Your task to perform on an android device: toggle priority inbox in the gmail app Image 0: 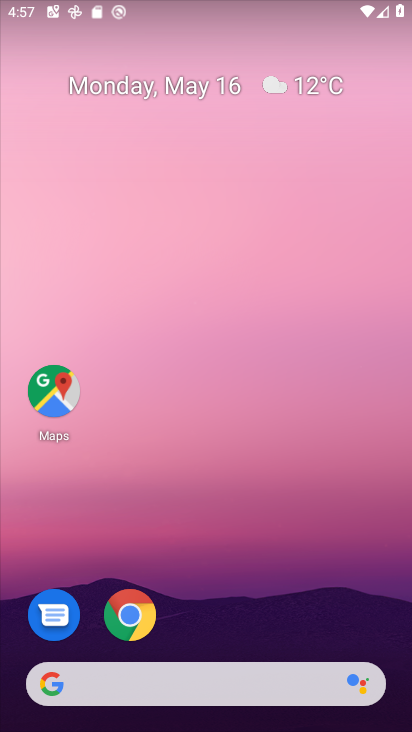
Step 0: drag from (247, 612) to (227, 169)
Your task to perform on an android device: toggle priority inbox in the gmail app Image 1: 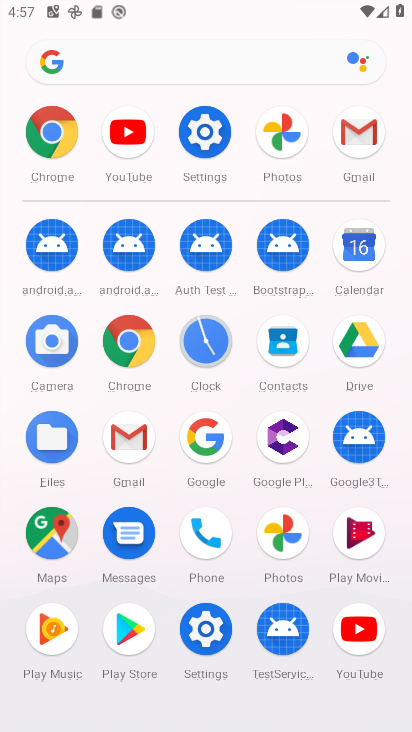
Step 1: click (205, 645)
Your task to perform on an android device: toggle priority inbox in the gmail app Image 2: 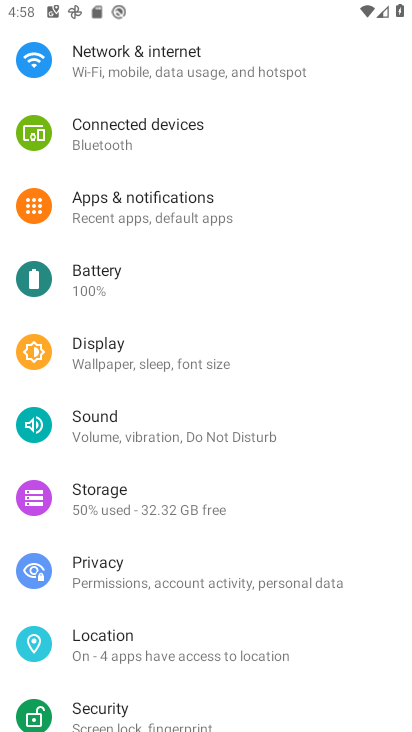
Step 2: press home button
Your task to perform on an android device: toggle priority inbox in the gmail app Image 3: 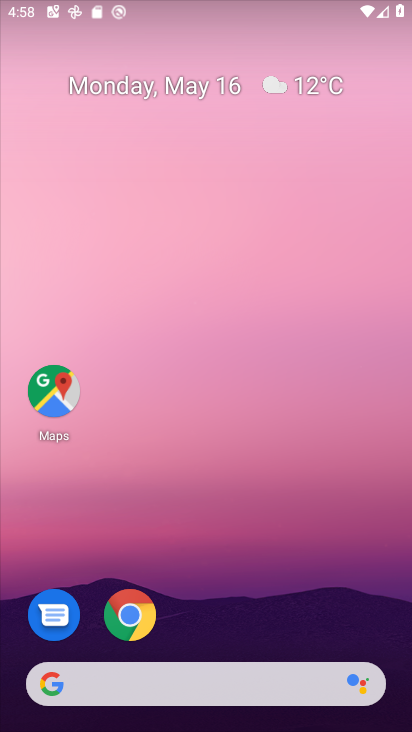
Step 3: drag from (192, 633) to (284, 194)
Your task to perform on an android device: toggle priority inbox in the gmail app Image 4: 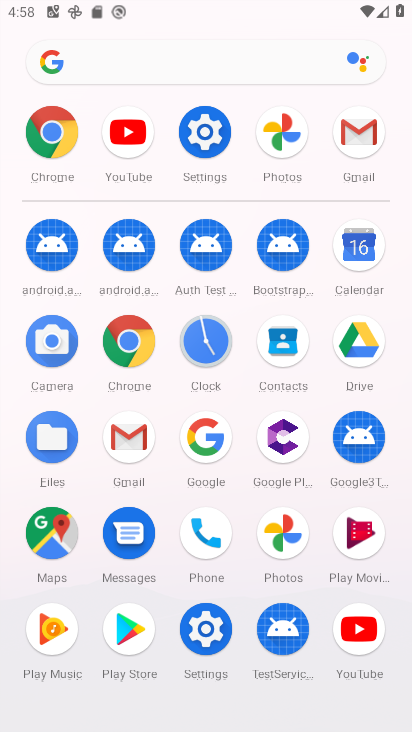
Step 4: click (130, 439)
Your task to perform on an android device: toggle priority inbox in the gmail app Image 5: 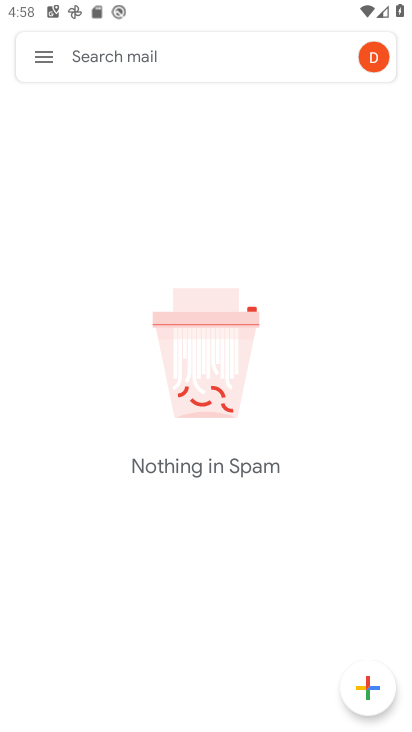
Step 5: click (40, 58)
Your task to perform on an android device: toggle priority inbox in the gmail app Image 6: 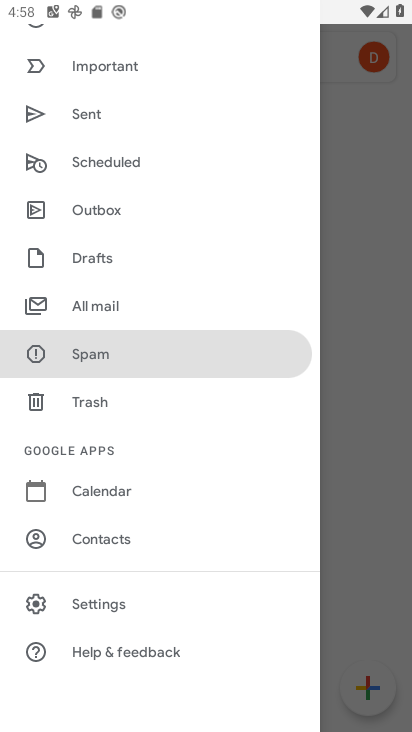
Step 6: click (96, 609)
Your task to perform on an android device: toggle priority inbox in the gmail app Image 7: 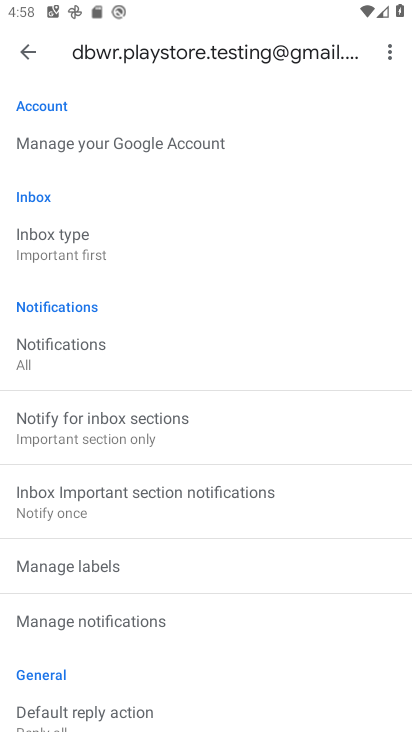
Step 7: click (69, 248)
Your task to perform on an android device: toggle priority inbox in the gmail app Image 8: 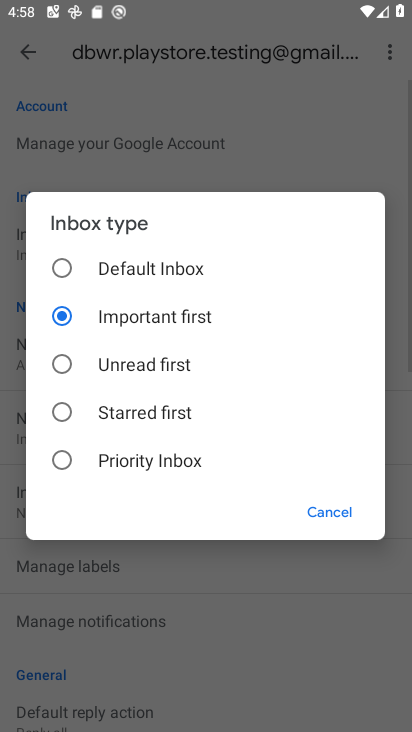
Step 8: click (68, 467)
Your task to perform on an android device: toggle priority inbox in the gmail app Image 9: 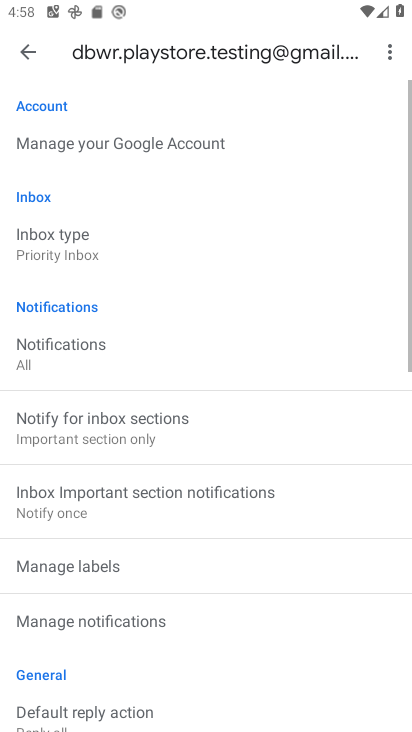
Step 9: task complete